Your task to perform on an android device: change the clock display to show seconds Image 0: 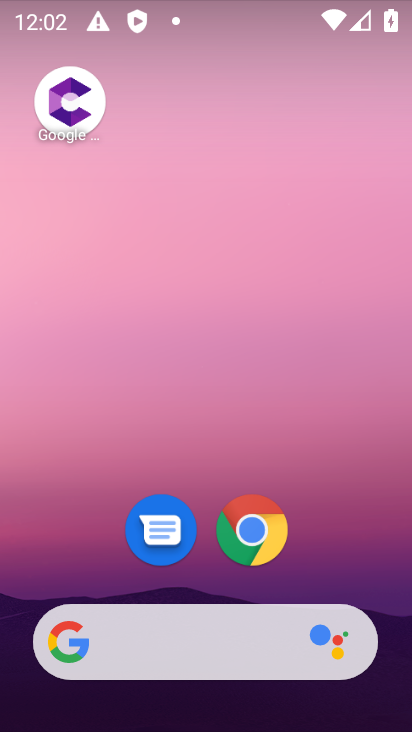
Step 0: drag from (51, 607) to (204, 182)
Your task to perform on an android device: change the clock display to show seconds Image 1: 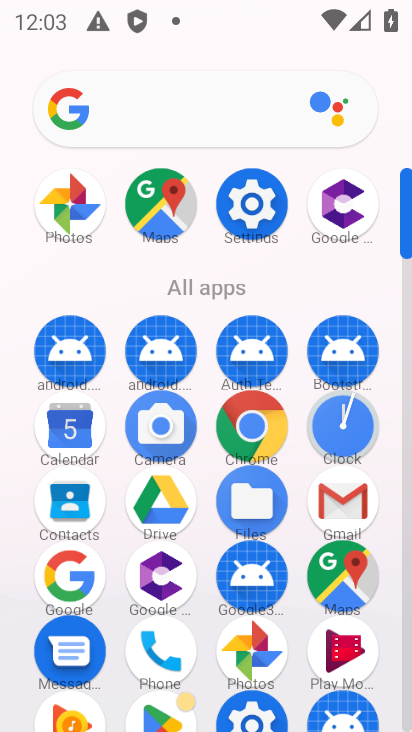
Step 1: click (347, 427)
Your task to perform on an android device: change the clock display to show seconds Image 2: 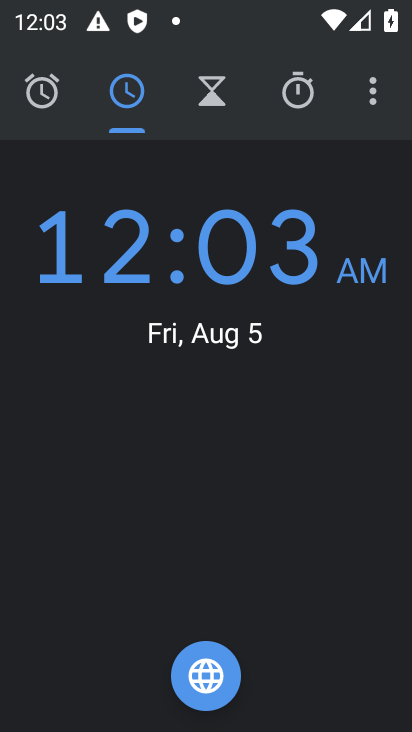
Step 2: click (378, 96)
Your task to perform on an android device: change the clock display to show seconds Image 3: 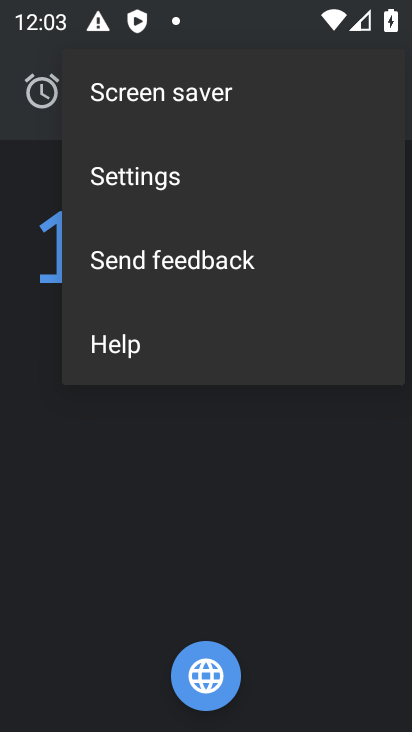
Step 3: click (157, 176)
Your task to perform on an android device: change the clock display to show seconds Image 4: 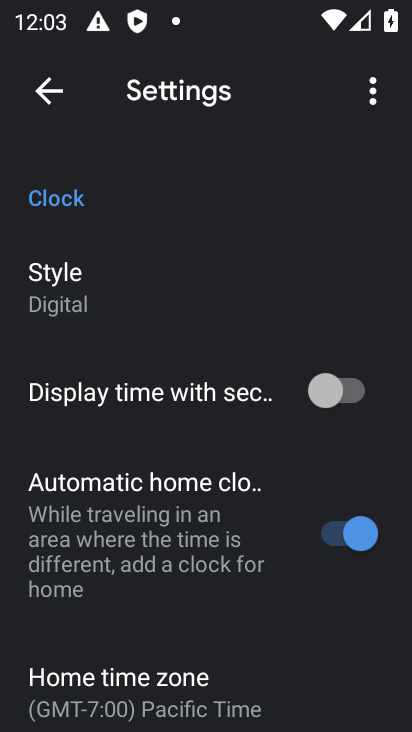
Step 4: click (317, 404)
Your task to perform on an android device: change the clock display to show seconds Image 5: 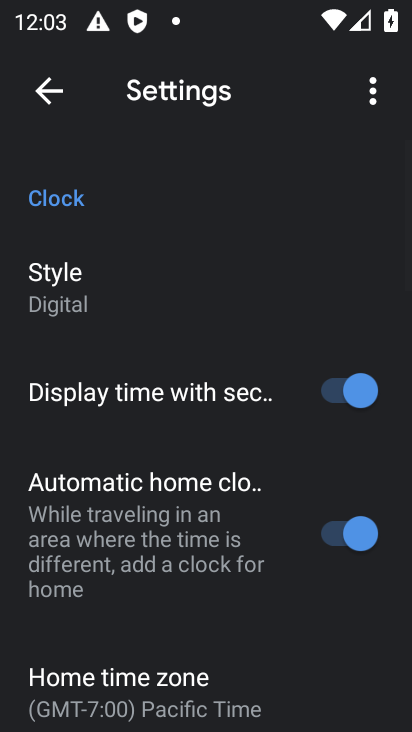
Step 5: task complete